Your task to perform on an android device: Search for razer blade on bestbuy.com, select the first entry, add it to the cart, then select checkout. Image 0: 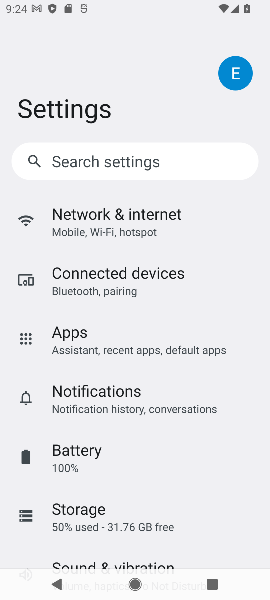
Step 0: task complete